Your task to perform on an android device: Search for seafood restaurants on Google Maps Image 0: 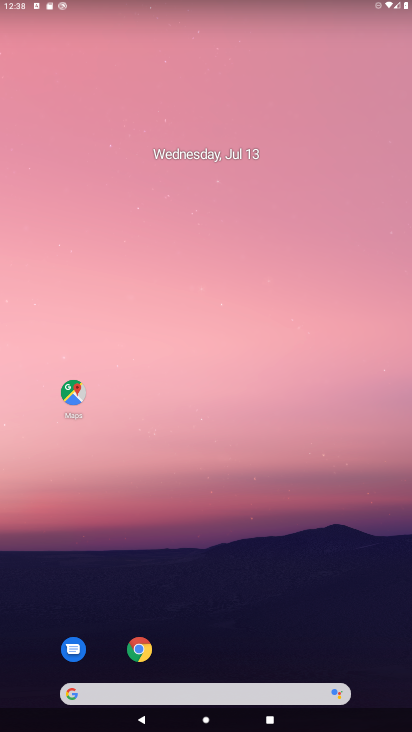
Step 0: click (72, 392)
Your task to perform on an android device: Search for seafood restaurants on Google Maps Image 1: 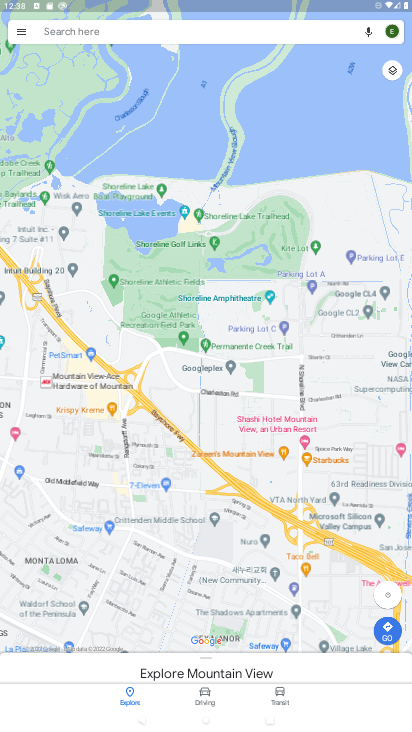
Step 1: click (88, 32)
Your task to perform on an android device: Search for seafood restaurants on Google Maps Image 2: 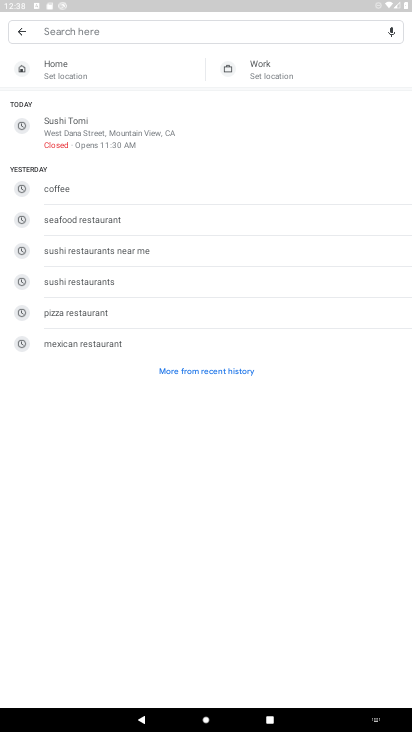
Step 2: type "seafood restaurants"
Your task to perform on an android device: Search for seafood restaurants on Google Maps Image 3: 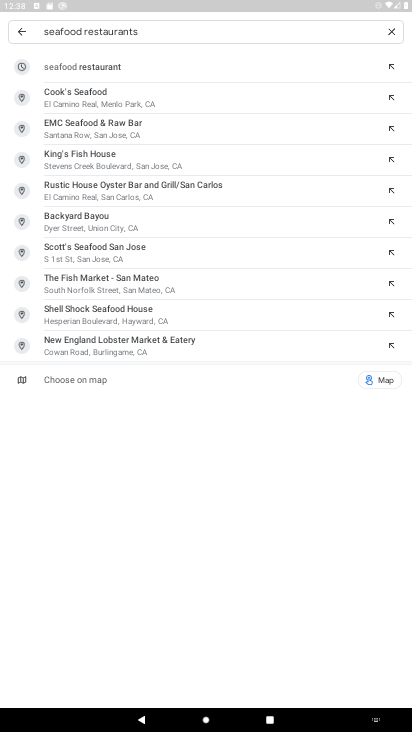
Step 3: click (66, 55)
Your task to perform on an android device: Search for seafood restaurants on Google Maps Image 4: 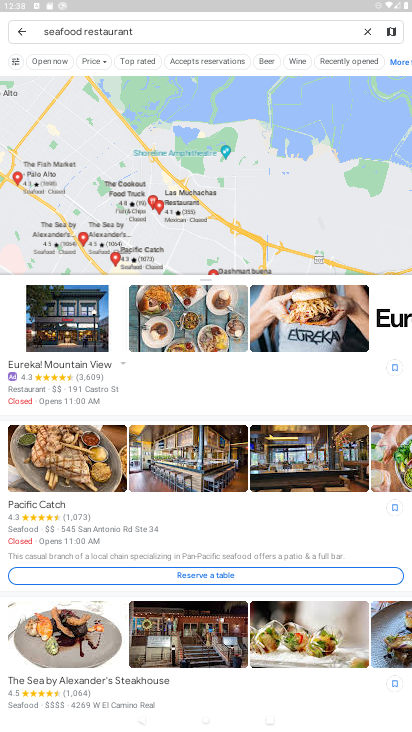
Step 4: task complete